Your task to perform on an android device: Go to battery settings Image 0: 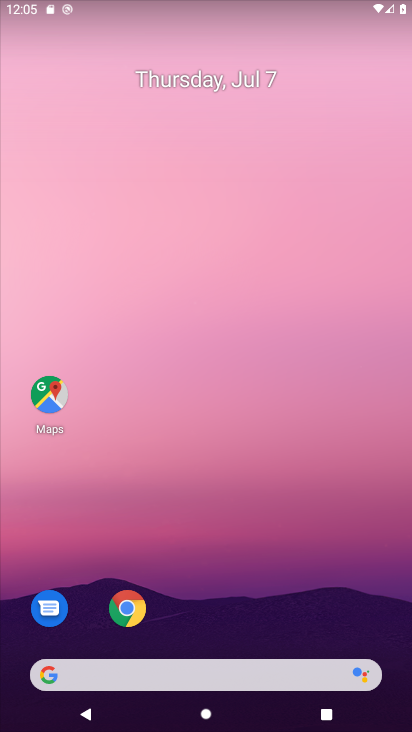
Step 0: drag from (287, 515) to (253, 84)
Your task to perform on an android device: Go to battery settings Image 1: 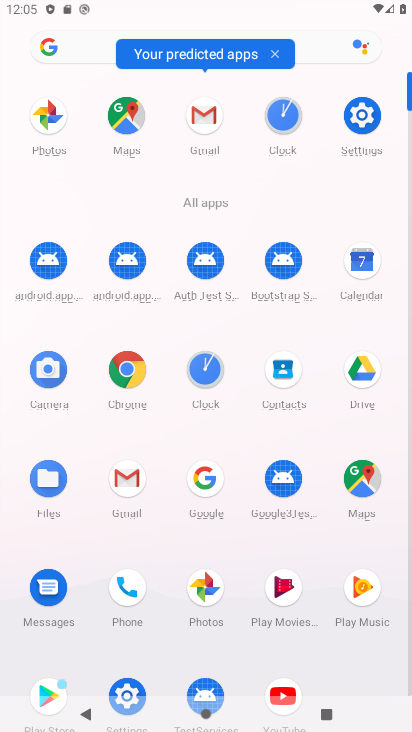
Step 1: click (374, 119)
Your task to perform on an android device: Go to battery settings Image 2: 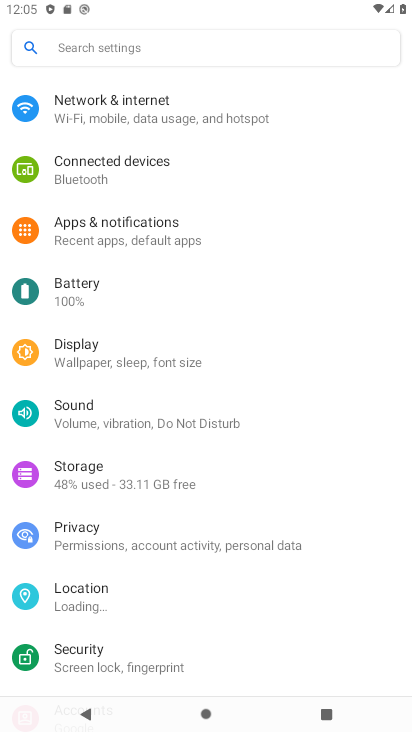
Step 2: click (88, 283)
Your task to perform on an android device: Go to battery settings Image 3: 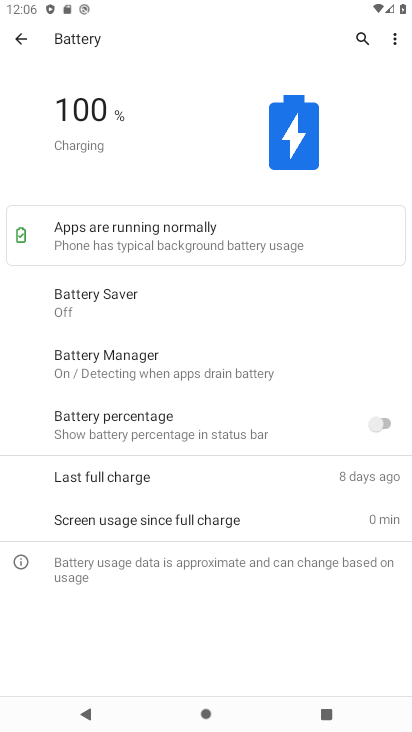
Step 3: task complete